Your task to perform on an android device: set default search engine in the chrome app Image 0: 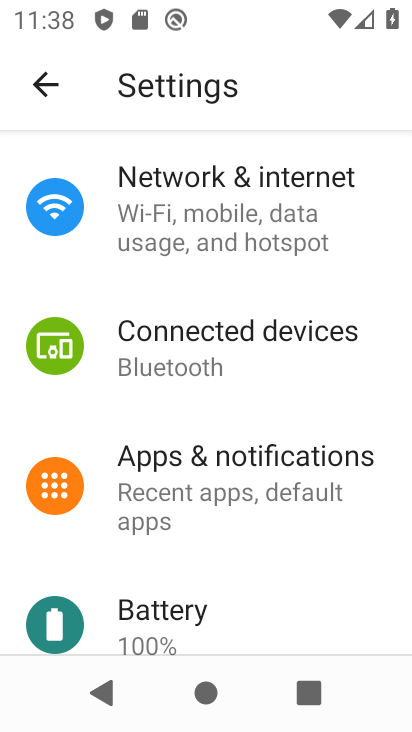
Step 0: press home button
Your task to perform on an android device: set default search engine in the chrome app Image 1: 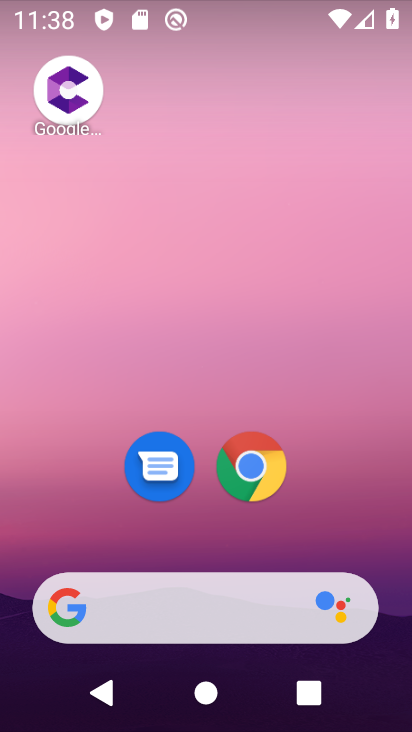
Step 1: drag from (382, 486) to (314, 58)
Your task to perform on an android device: set default search engine in the chrome app Image 2: 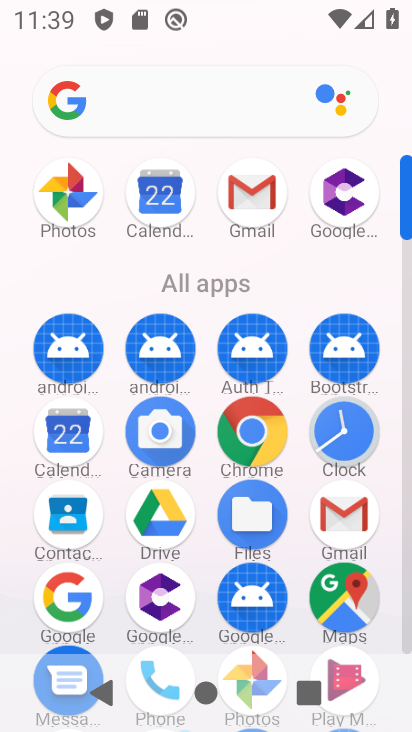
Step 2: click (253, 395)
Your task to perform on an android device: set default search engine in the chrome app Image 3: 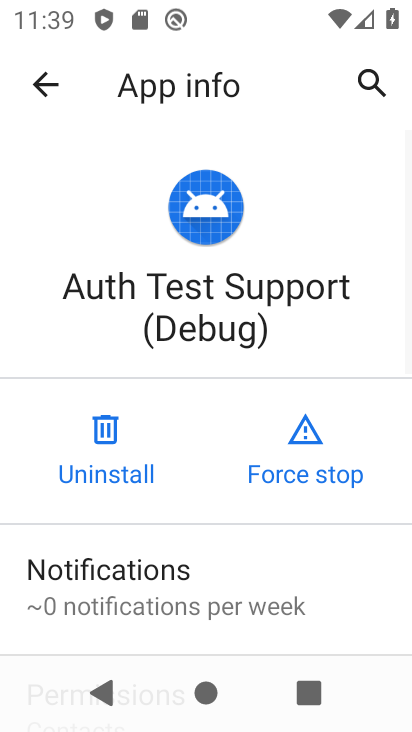
Step 3: press home button
Your task to perform on an android device: set default search engine in the chrome app Image 4: 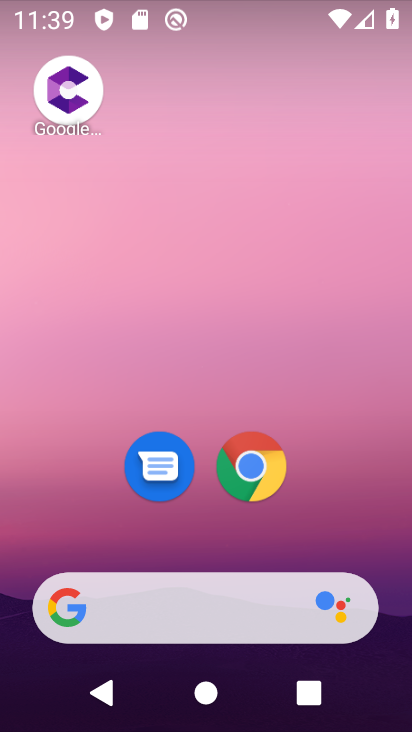
Step 4: drag from (365, 584) to (322, 120)
Your task to perform on an android device: set default search engine in the chrome app Image 5: 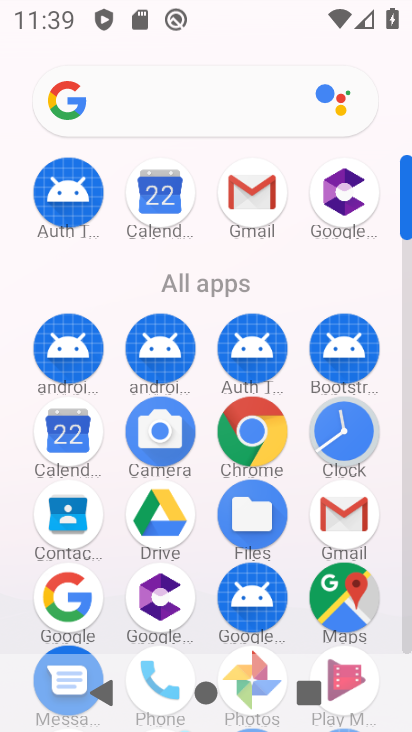
Step 5: click (254, 433)
Your task to perform on an android device: set default search engine in the chrome app Image 6: 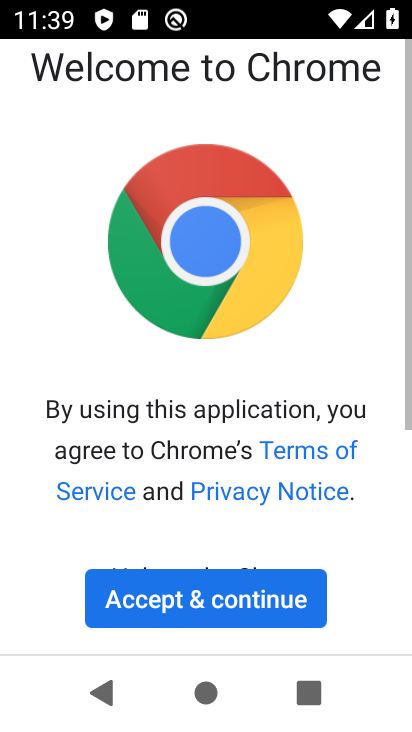
Step 6: click (148, 635)
Your task to perform on an android device: set default search engine in the chrome app Image 7: 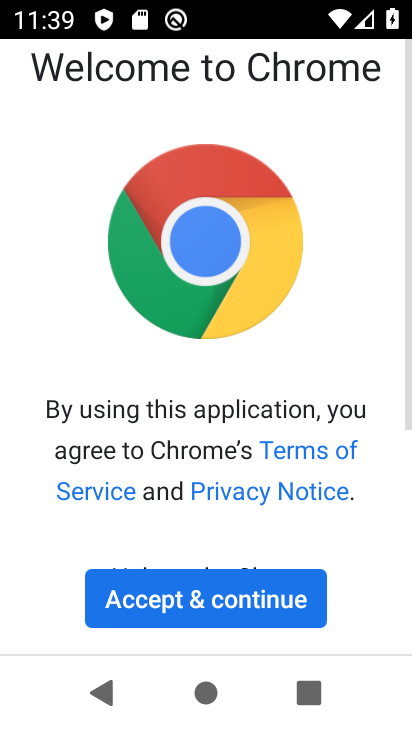
Step 7: click (148, 630)
Your task to perform on an android device: set default search engine in the chrome app Image 8: 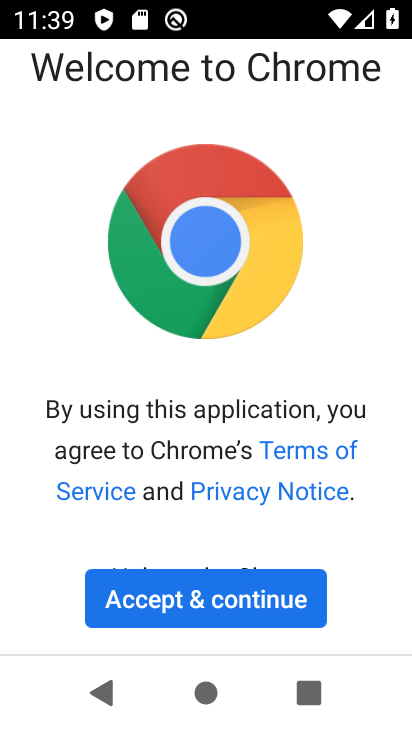
Step 8: click (148, 630)
Your task to perform on an android device: set default search engine in the chrome app Image 9: 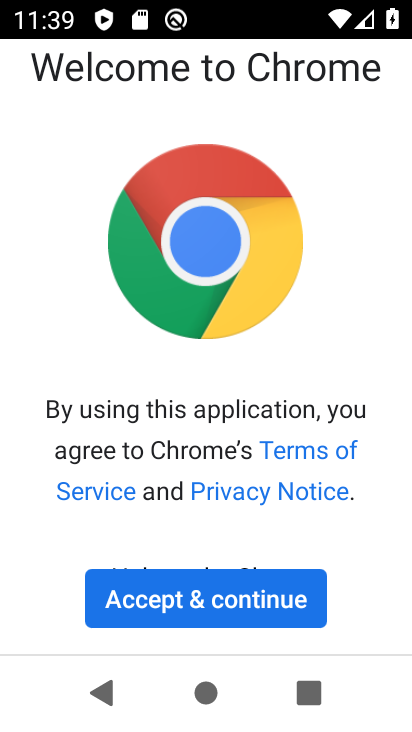
Step 9: click (145, 612)
Your task to perform on an android device: set default search engine in the chrome app Image 10: 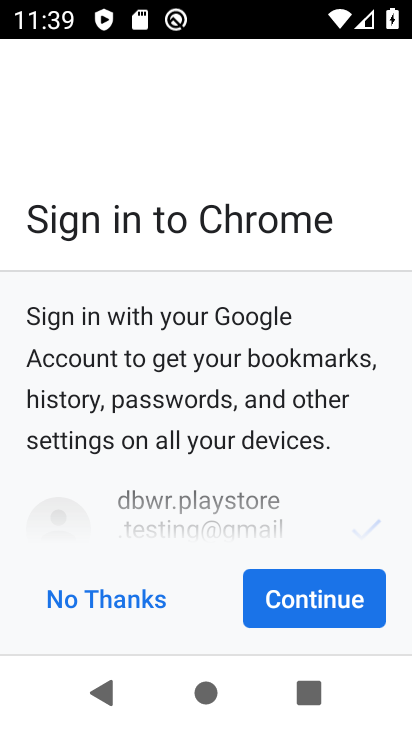
Step 10: click (353, 619)
Your task to perform on an android device: set default search engine in the chrome app Image 11: 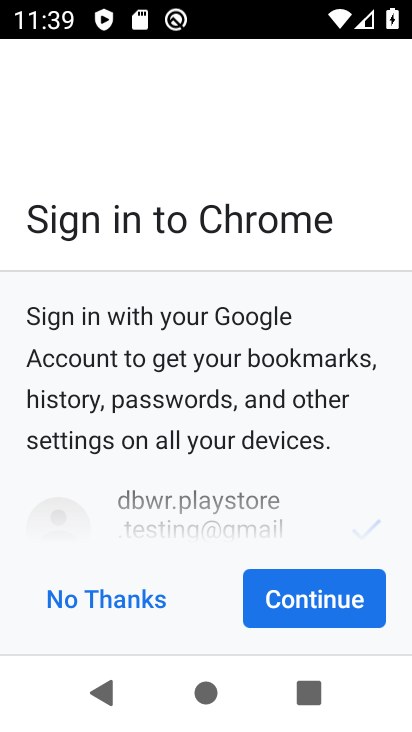
Step 11: click (353, 615)
Your task to perform on an android device: set default search engine in the chrome app Image 12: 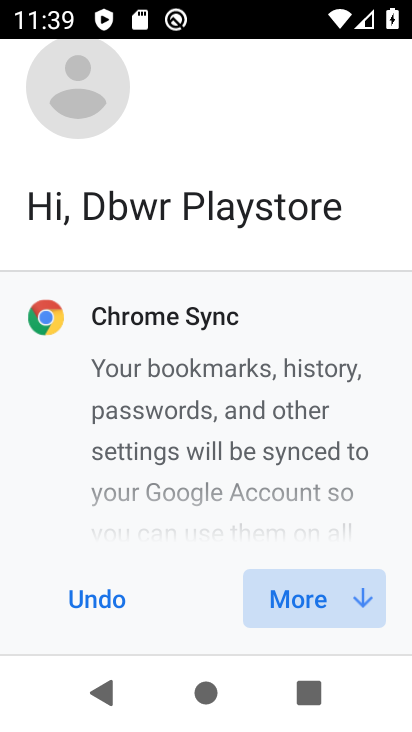
Step 12: click (351, 611)
Your task to perform on an android device: set default search engine in the chrome app Image 13: 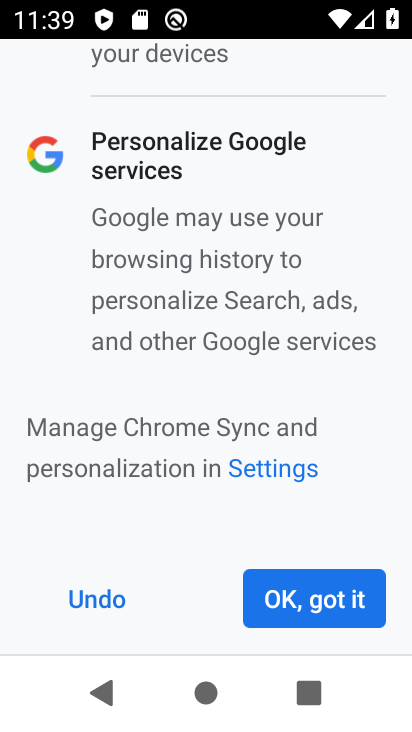
Step 13: click (305, 607)
Your task to perform on an android device: set default search engine in the chrome app Image 14: 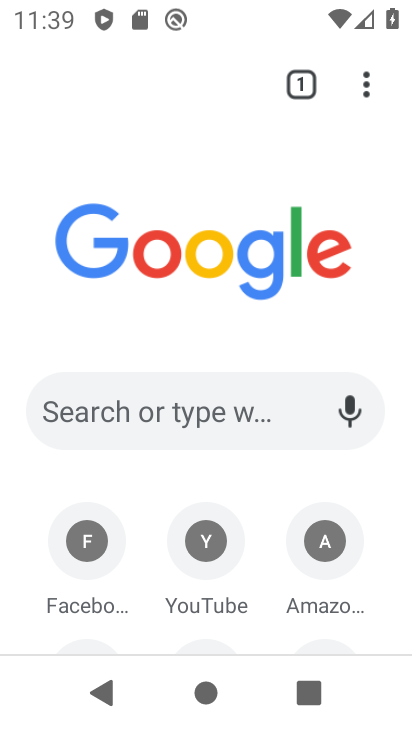
Step 14: drag from (354, 74) to (78, 519)
Your task to perform on an android device: set default search engine in the chrome app Image 15: 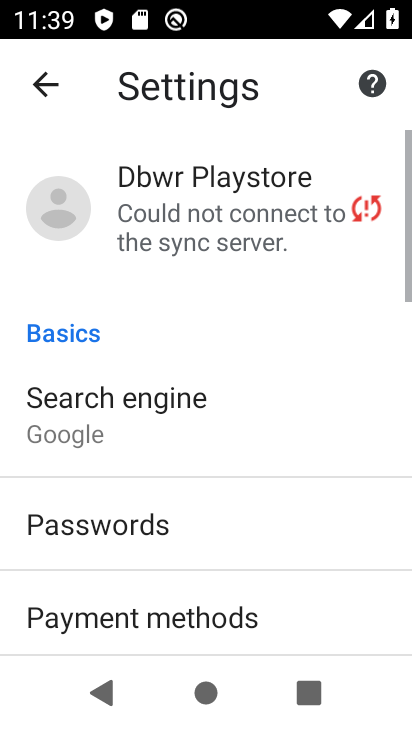
Step 15: click (53, 394)
Your task to perform on an android device: set default search engine in the chrome app Image 16: 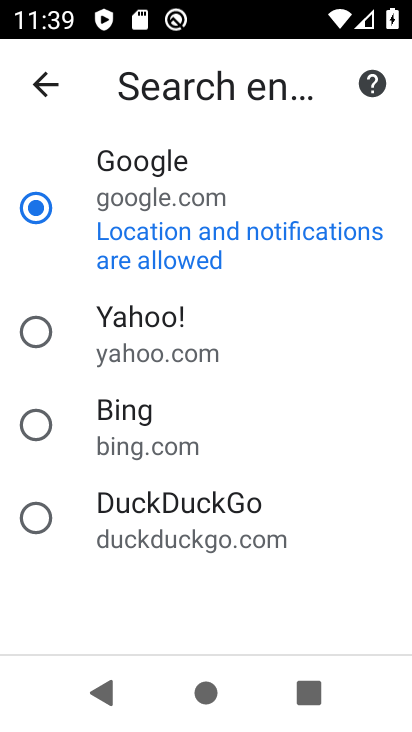
Step 16: click (94, 145)
Your task to perform on an android device: set default search engine in the chrome app Image 17: 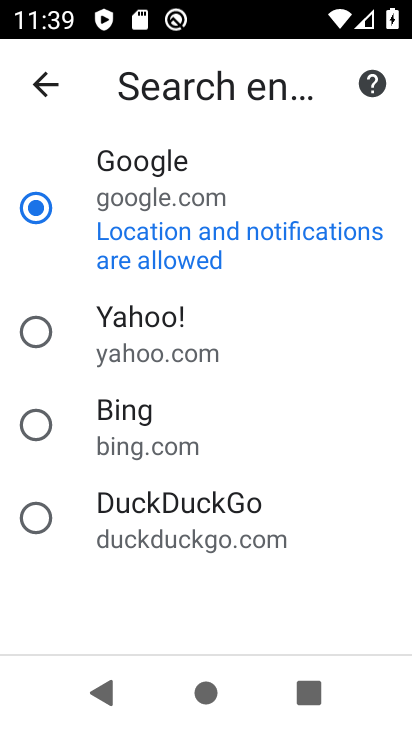
Step 17: task complete